Your task to perform on an android device: Open Chrome and go to settings Image 0: 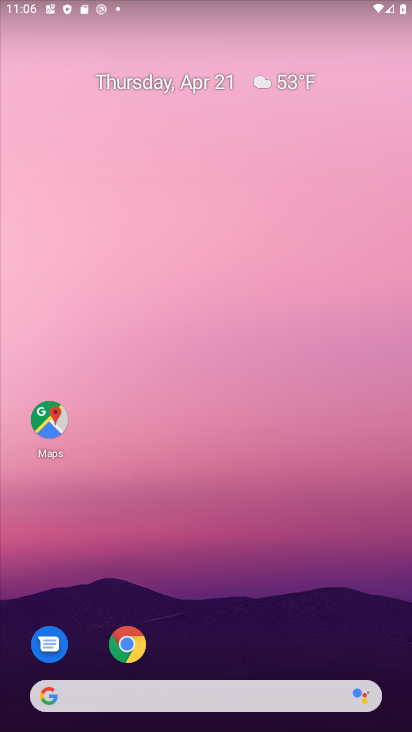
Step 0: drag from (262, 657) to (238, 287)
Your task to perform on an android device: Open Chrome and go to settings Image 1: 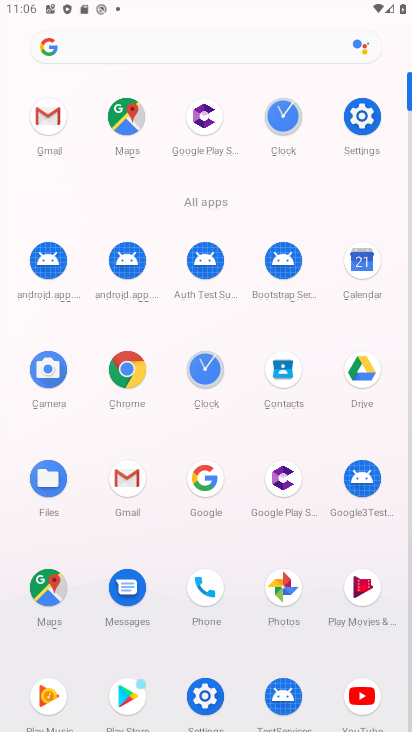
Step 1: click (132, 376)
Your task to perform on an android device: Open Chrome and go to settings Image 2: 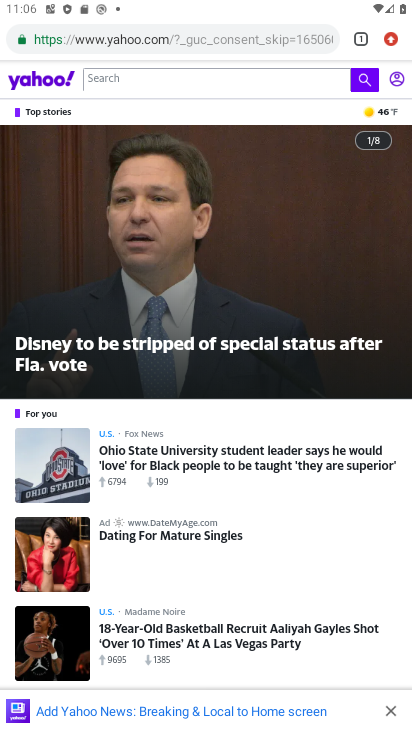
Step 2: click (390, 57)
Your task to perform on an android device: Open Chrome and go to settings Image 3: 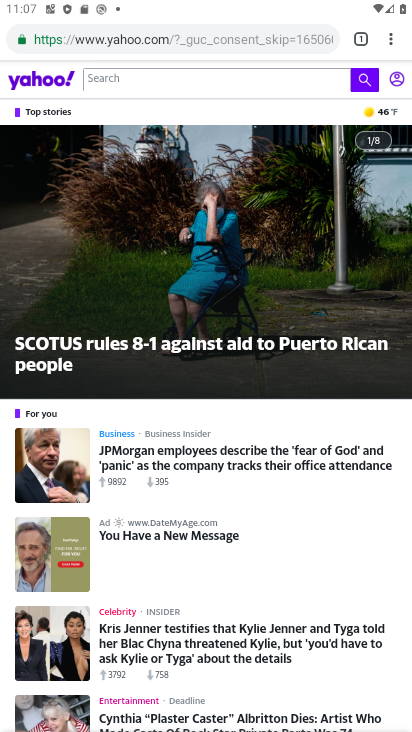
Step 3: task complete